Your task to perform on an android device: allow notifications from all sites in the chrome app Image 0: 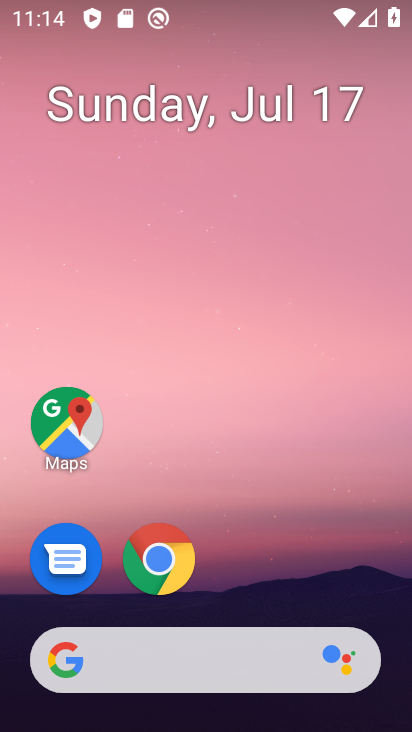
Step 0: click (167, 562)
Your task to perform on an android device: allow notifications from all sites in the chrome app Image 1: 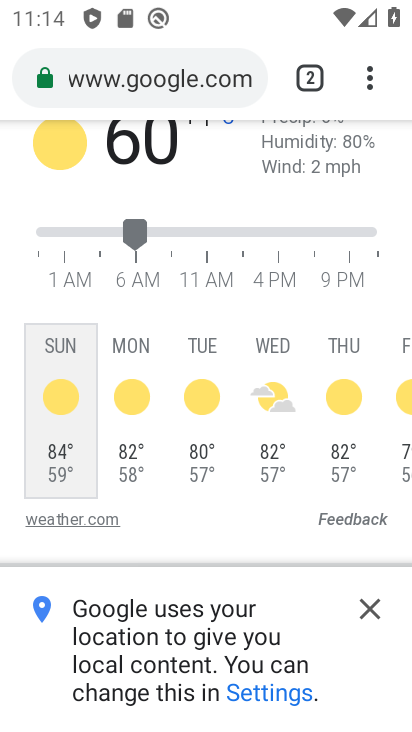
Step 1: press back button
Your task to perform on an android device: allow notifications from all sites in the chrome app Image 2: 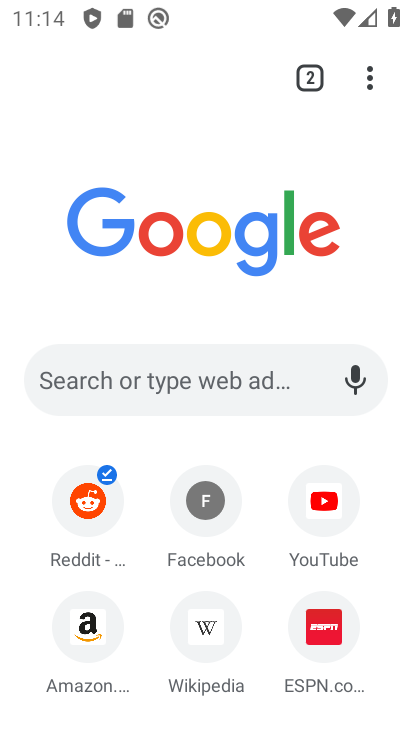
Step 2: drag from (375, 70) to (123, 619)
Your task to perform on an android device: allow notifications from all sites in the chrome app Image 3: 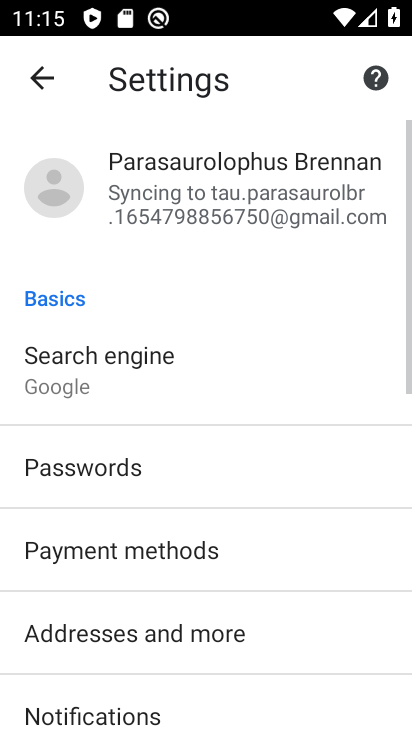
Step 3: drag from (132, 648) to (257, 120)
Your task to perform on an android device: allow notifications from all sites in the chrome app Image 4: 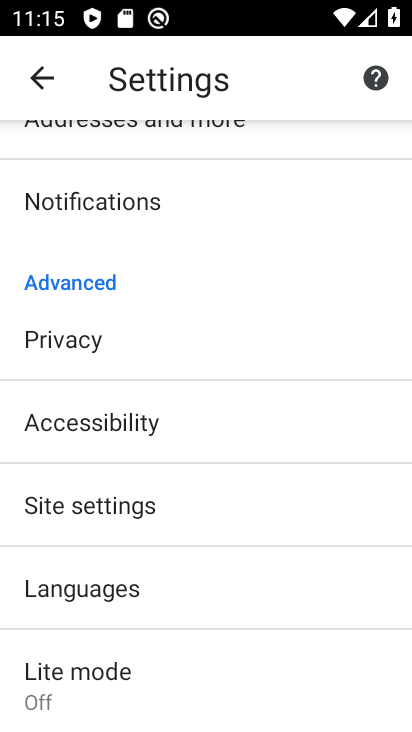
Step 4: click (129, 505)
Your task to perform on an android device: allow notifications from all sites in the chrome app Image 5: 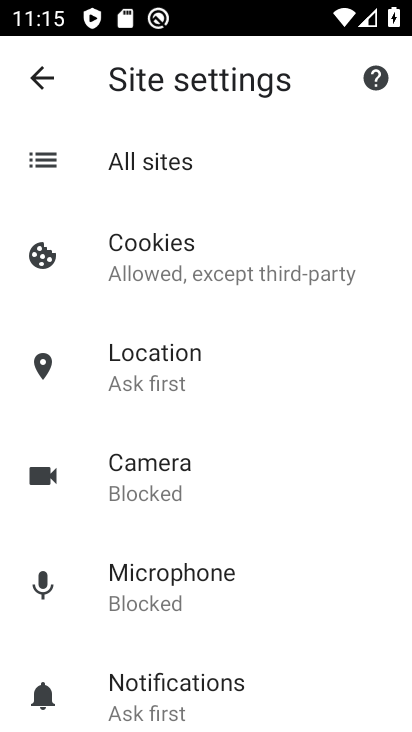
Step 5: drag from (214, 640) to (275, 91)
Your task to perform on an android device: allow notifications from all sites in the chrome app Image 6: 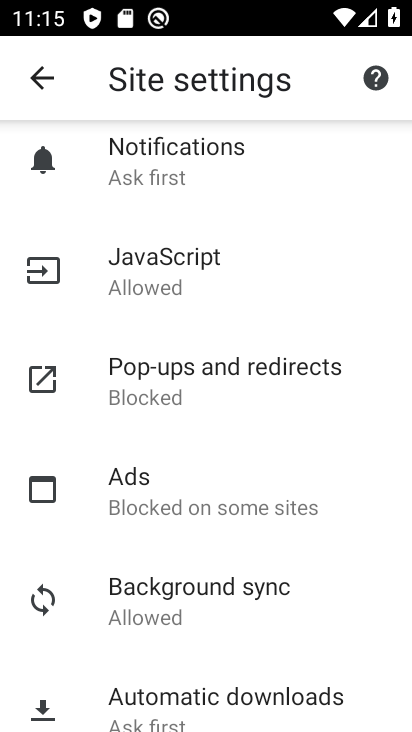
Step 6: drag from (175, 622) to (193, 674)
Your task to perform on an android device: allow notifications from all sites in the chrome app Image 7: 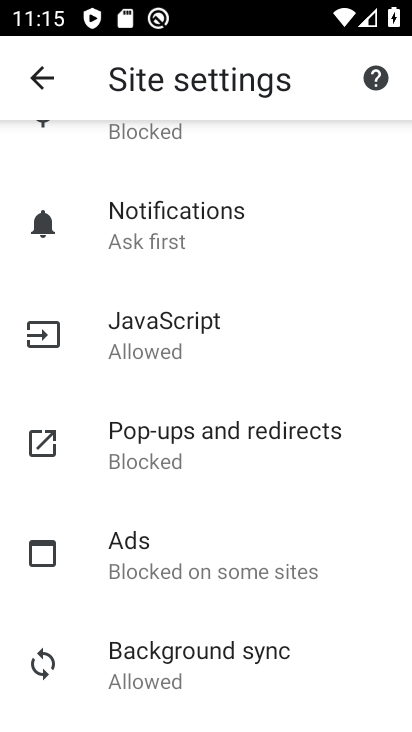
Step 7: click (138, 235)
Your task to perform on an android device: allow notifications from all sites in the chrome app Image 8: 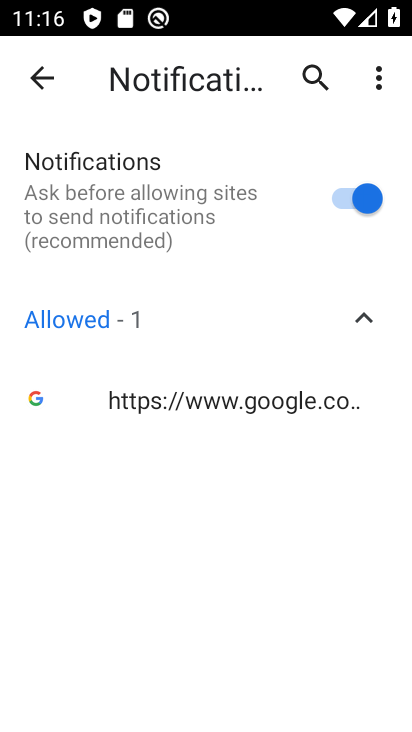
Step 8: task complete